Your task to perform on an android device: make emails show in primary in the gmail app Image 0: 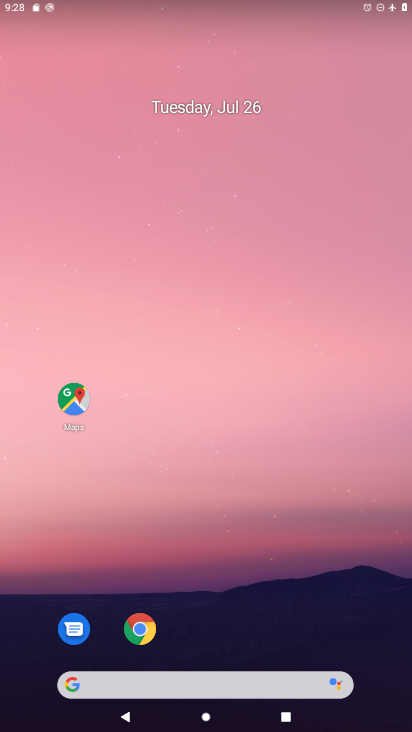
Step 0: drag from (236, 668) to (170, 95)
Your task to perform on an android device: make emails show in primary in the gmail app Image 1: 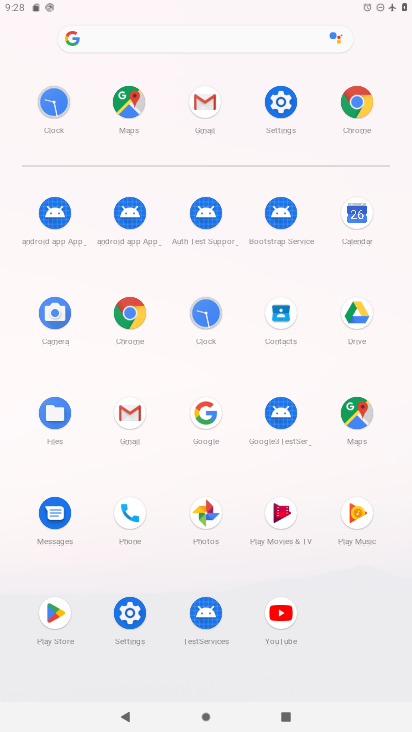
Step 1: click (141, 406)
Your task to perform on an android device: make emails show in primary in the gmail app Image 2: 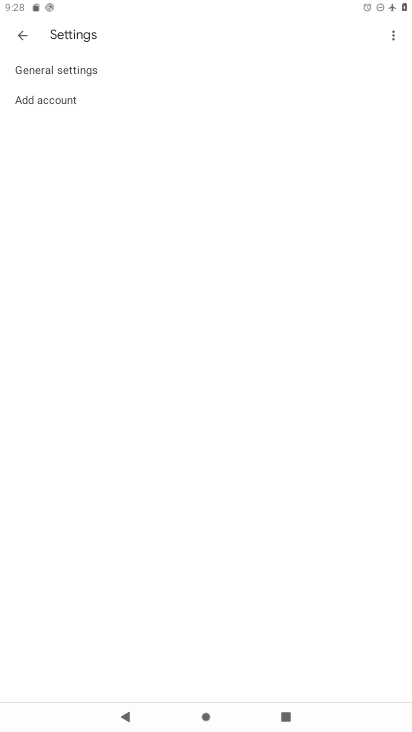
Step 2: click (8, 33)
Your task to perform on an android device: make emails show in primary in the gmail app Image 3: 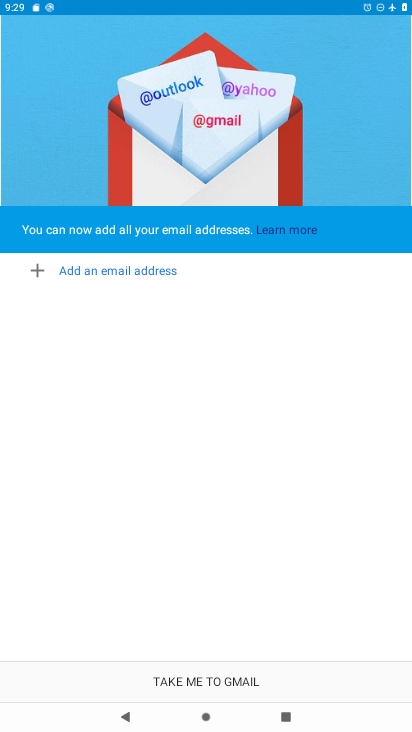
Step 3: task complete